Your task to perform on an android device: Go to ESPN.com Image 0: 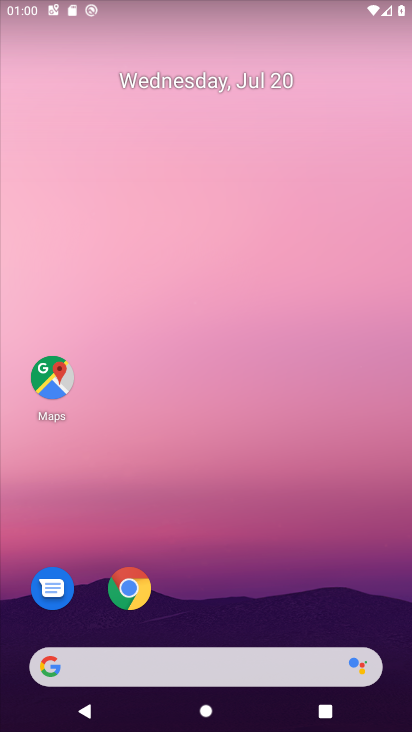
Step 0: drag from (197, 495) to (202, 211)
Your task to perform on an android device: Go to ESPN.com Image 1: 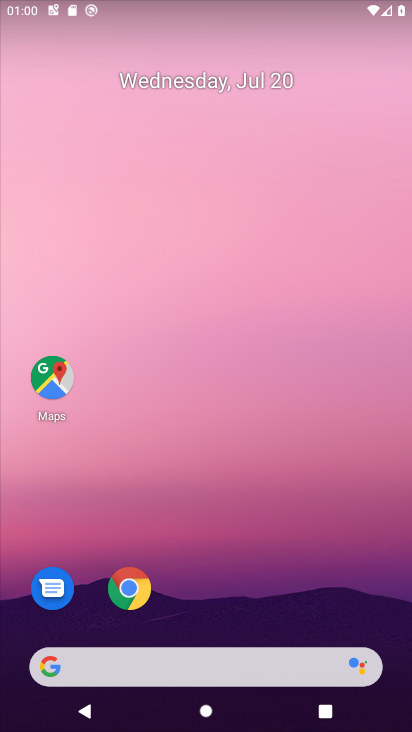
Step 1: drag from (220, 497) to (222, 183)
Your task to perform on an android device: Go to ESPN.com Image 2: 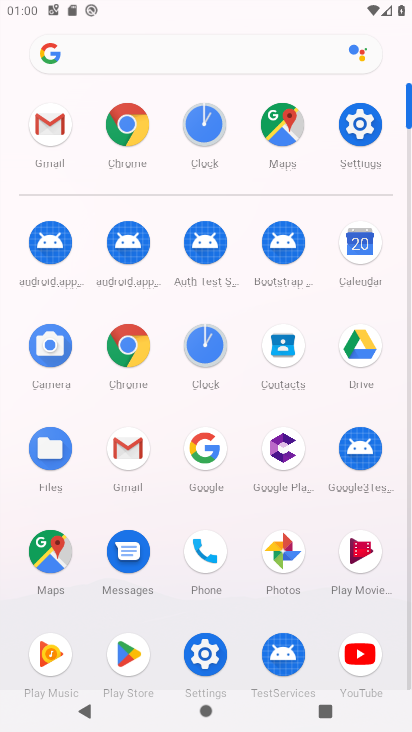
Step 2: click (119, 112)
Your task to perform on an android device: Go to ESPN.com Image 3: 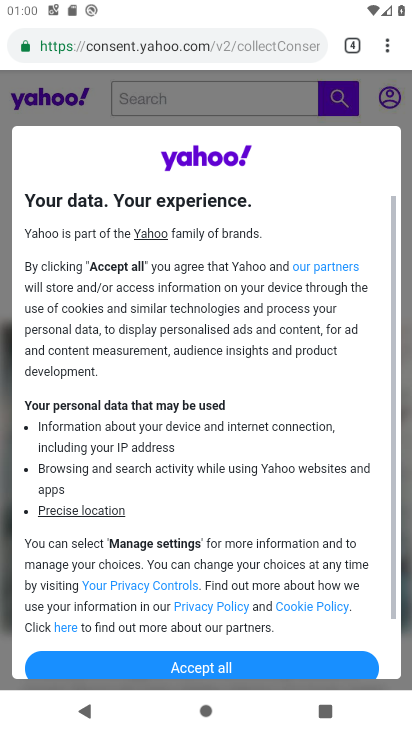
Step 3: click (393, 40)
Your task to perform on an android device: Go to ESPN.com Image 4: 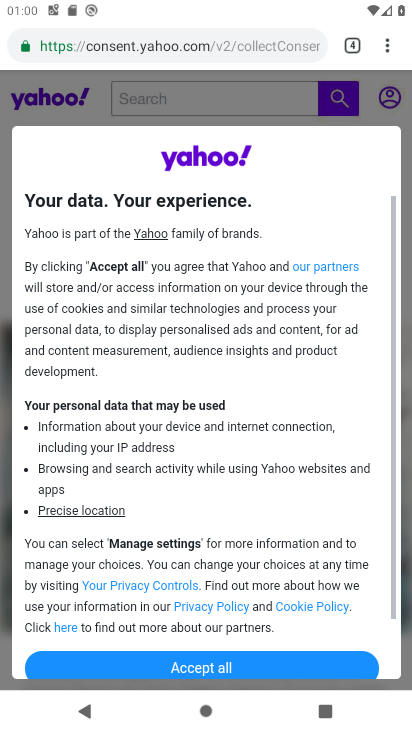
Step 4: click (393, 45)
Your task to perform on an android device: Go to ESPN.com Image 5: 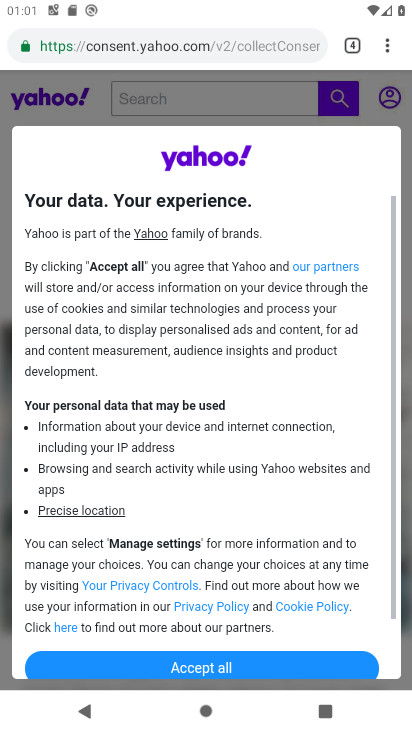
Step 5: click (395, 45)
Your task to perform on an android device: Go to ESPN.com Image 6: 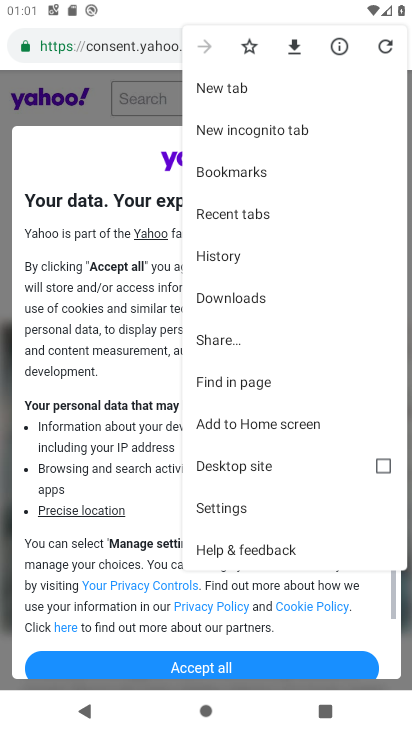
Step 6: click (216, 79)
Your task to perform on an android device: Go to ESPN.com Image 7: 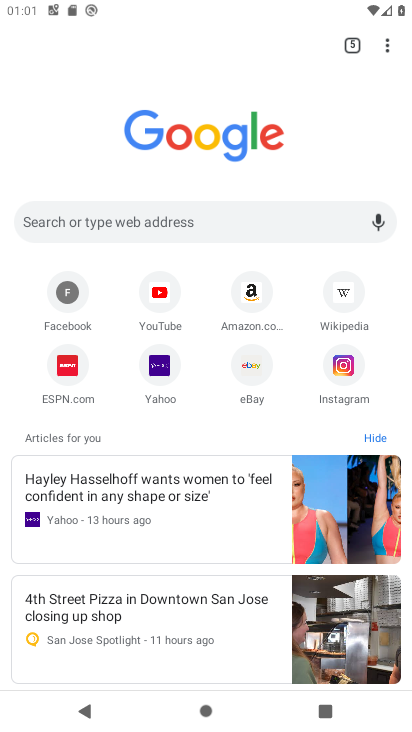
Step 7: click (74, 357)
Your task to perform on an android device: Go to ESPN.com Image 8: 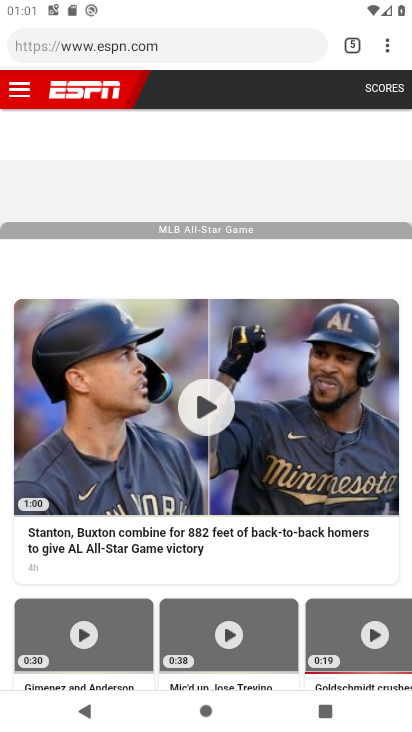
Step 8: task complete